Your task to perform on an android device: Turn on the flashlight Image 0: 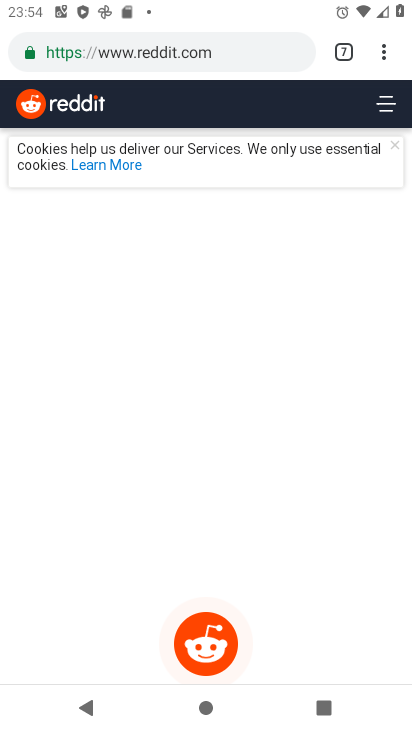
Step 0: click (41, 343)
Your task to perform on an android device: Turn on the flashlight Image 1: 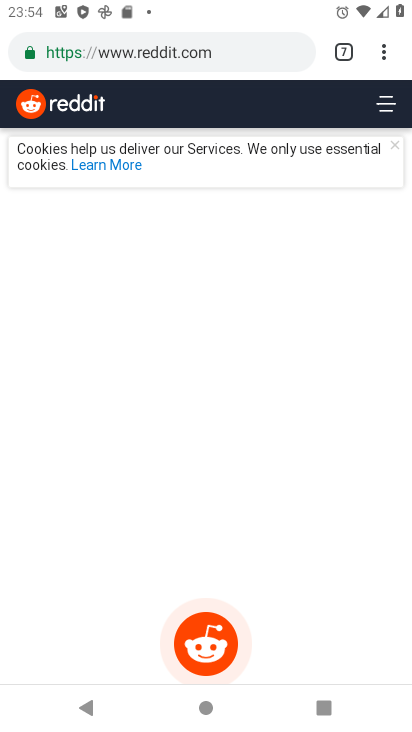
Step 1: press home button
Your task to perform on an android device: Turn on the flashlight Image 2: 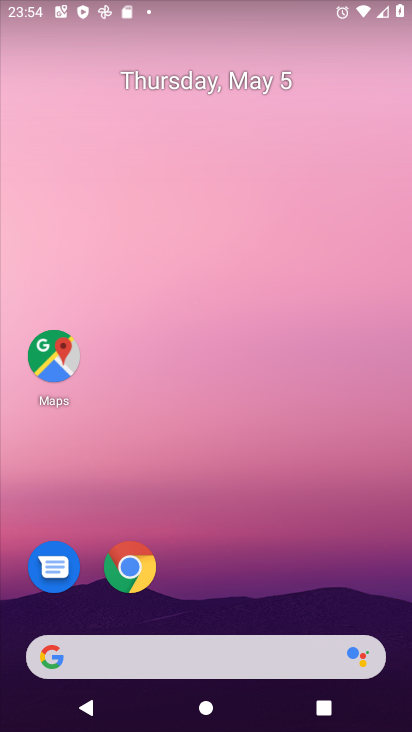
Step 2: drag from (215, 586) to (247, 204)
Your task to perform on an android device: Turn on the flashlight Image 3: 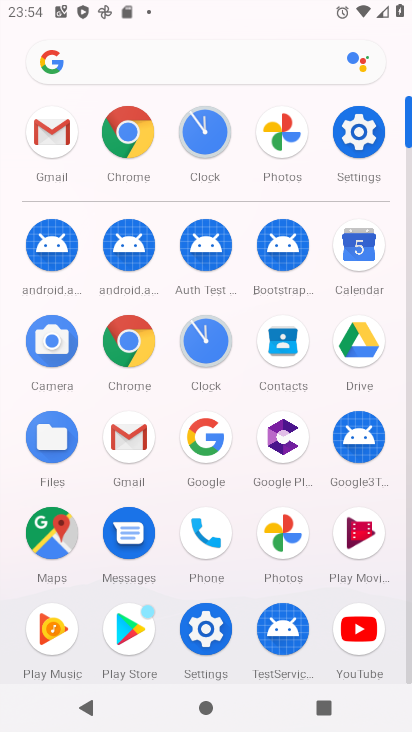
Step 3: click (367, 125)
Your task to perform on an android device: Turn on the flashlight Image 4: 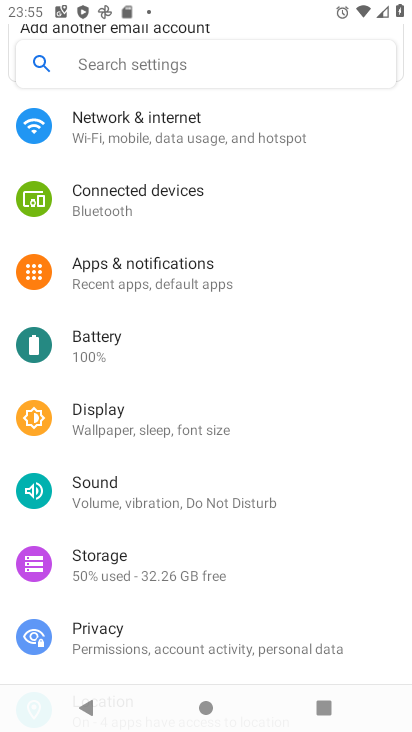
Step 4: drag from (149, 199) to (178, 480)
Your task to perform on an android device: Turn on the flashlight Image 5: 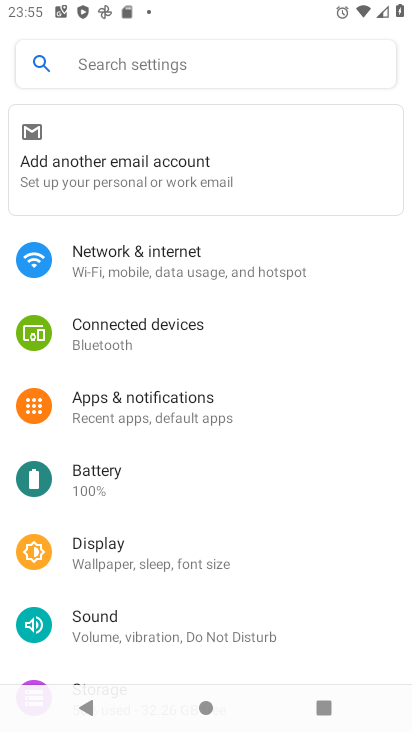
Step 5: click (173, 412)
Your task to perform on an android device: Turn on the flashlight Image 6: 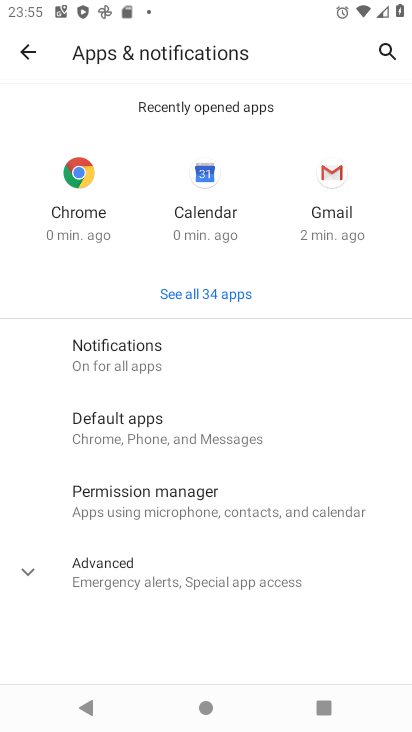
Step 6: task complete